Your task to perform on an android device: toggle priority inbox in the gmail app Image 0: 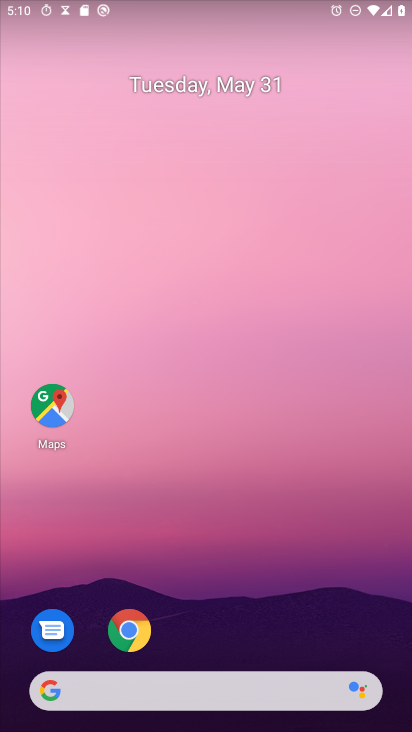
Step 0: drag from (308, 676) to (400, 497)
Your task to perform on an android device: toggle priority inbox in the gmail app Image 1: 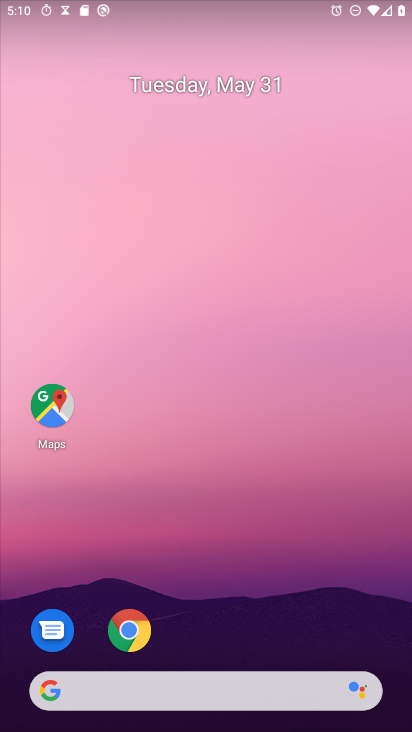
Step 1: drag from (279, 543) to (335, 79)
Your task to perform on an android device: toggle priority inbox in the gmail app Image 2: 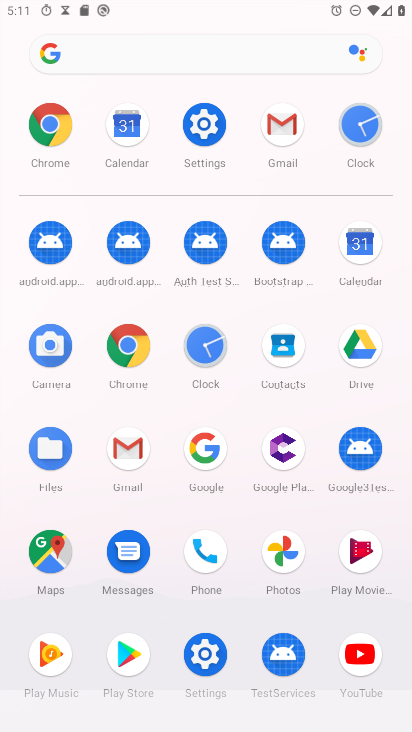
Step 2: click (104, 454)
Your task to perform on an android device: toggle priority inbox in the gmail app Image 3: 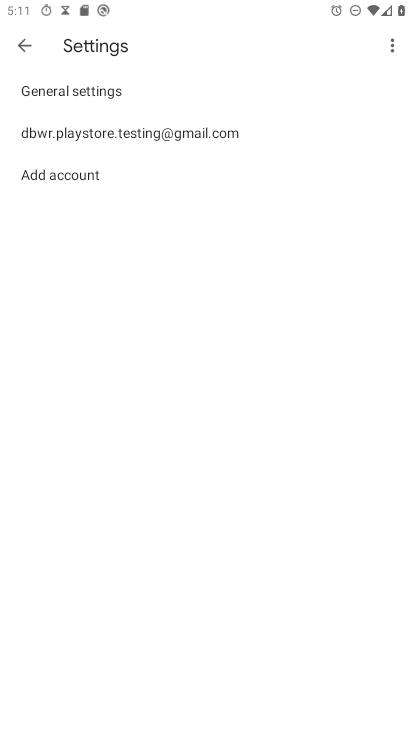
Step 3: press back button
Your task to perform on an android device: toggle priority inbox in the gmail app Image 4: 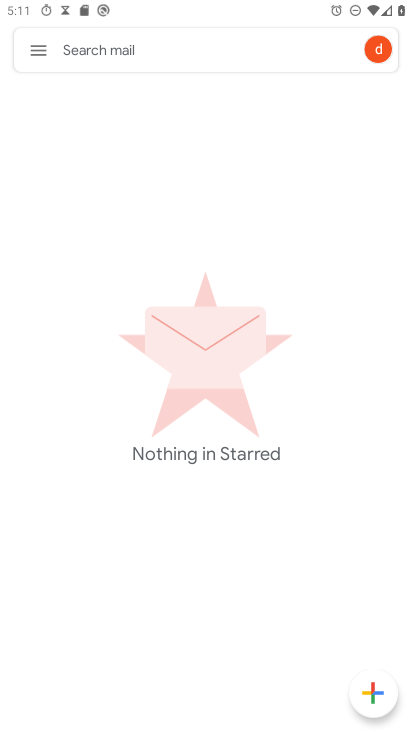
Step 4: click (46, 46)
Your task to perform on an android device: toggle priority inbox in the gmail app Image 5: 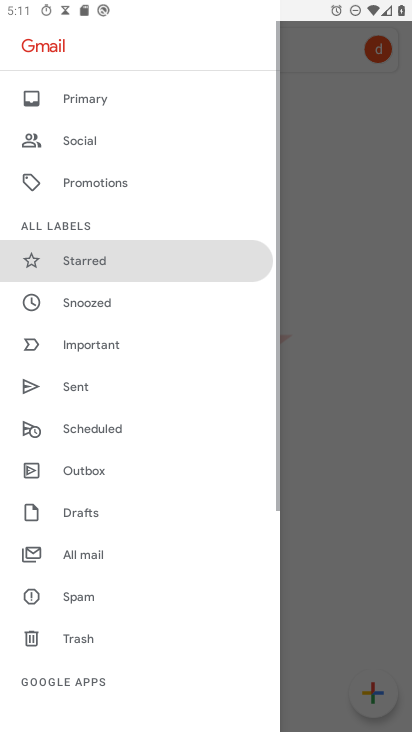
Step 5: drag from (195, 604) to (299, 92)
Your task to perform on an android device: toggle priority inbox in the gmail app Image 6: 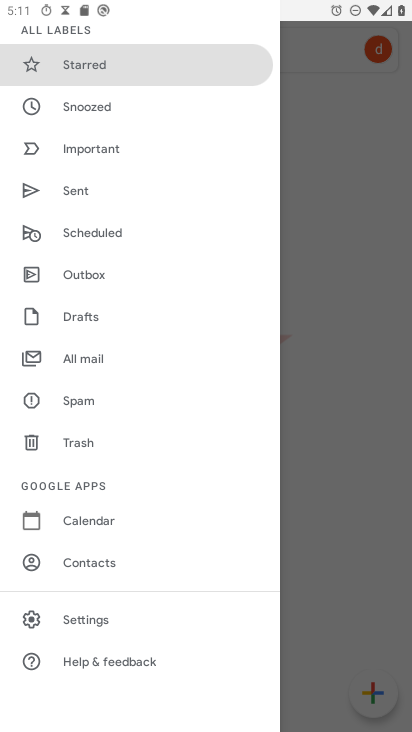
Step 6: click (86, 621)
Your task to perform on an android device: toggle priority inbox in the gmail app Image 7: 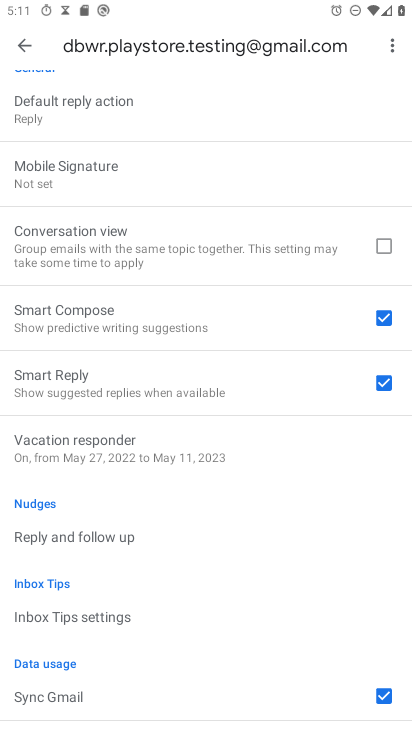
Step 7: drag from (125, 158) to (160, 731)
Your task to perform on an android device: toggle priority inbox in the gmail app Image 8: 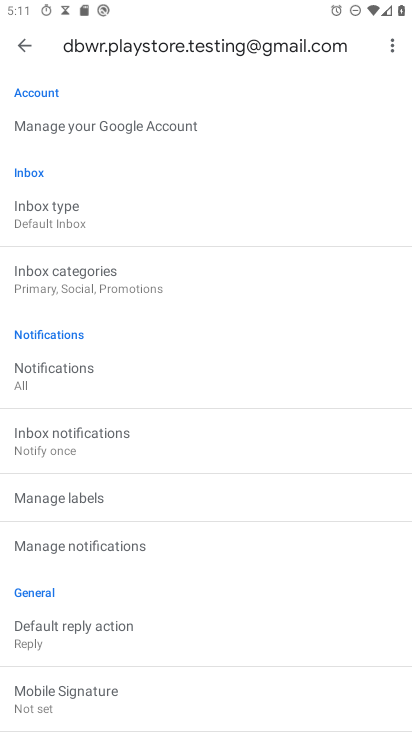
Step 8: click (102, 216)
Your task to perform on an android device: toggle priority inbox in the gmail app Image 9: 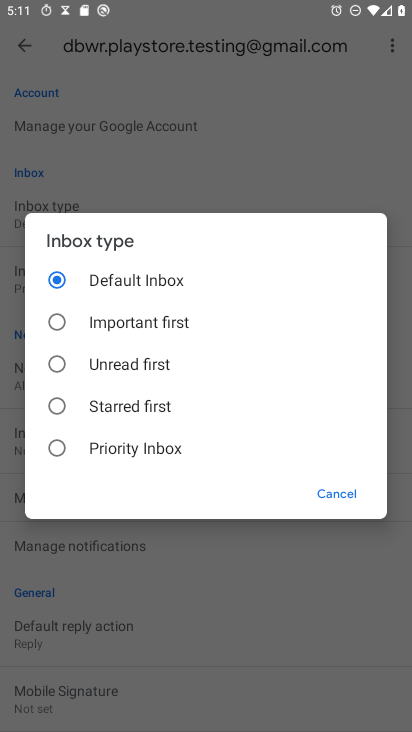
Step 9: click (134, 452)
Your task to perform on an android device: toggle priority inbox in the gmail app Image 10: 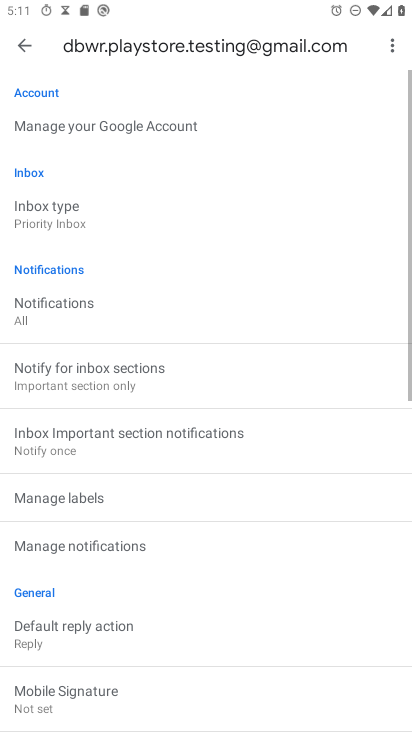
Step 10: task complete